Your task to perform on an android device: Open internet settings Image 0: 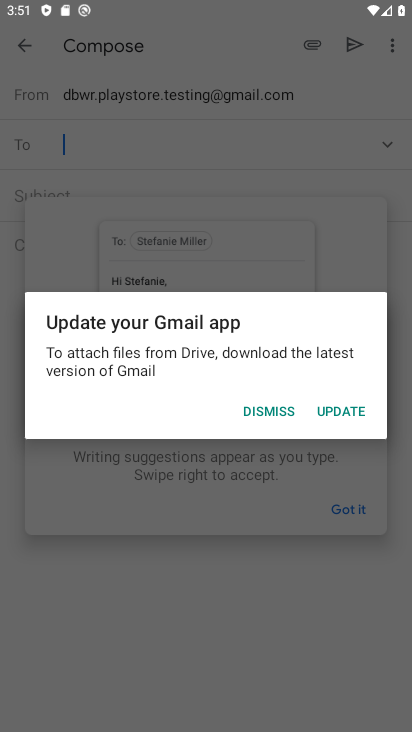
Step 0: press home button
Your task to perform on an android device: Open internet settings Image 1: 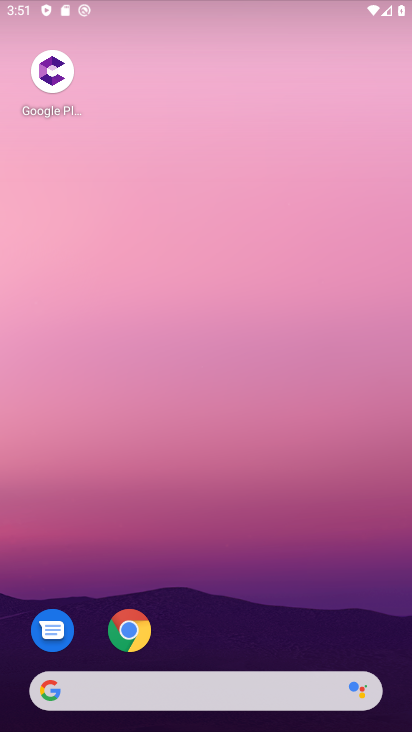
Step 1: drag from (190, 729) to (178, 276)
Your task to perform on an android device: Open internet settings Image 2: 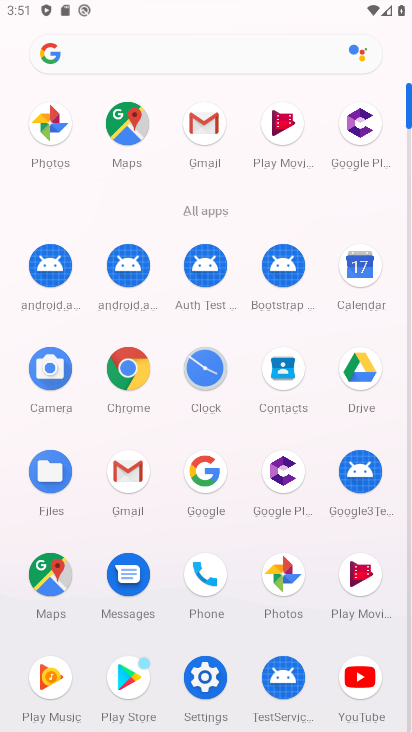
Step 2: click (208, 666)
Your task to perform on an android device: Open internet settings Image 3: 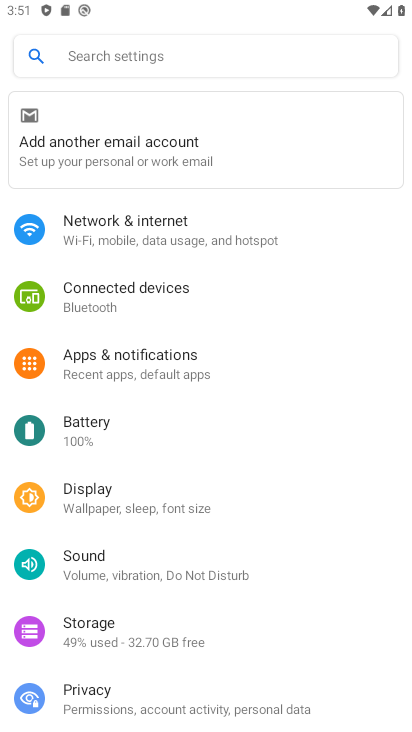
Step 3: click (91, 245)
Your task to perform on an android device: Open internet settings Image 4: 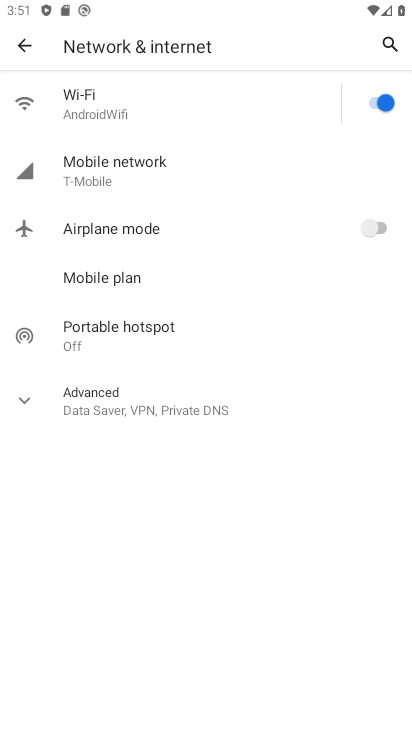
Step 4: task complete